Your task to perform on an android device: Open settings Image 0: 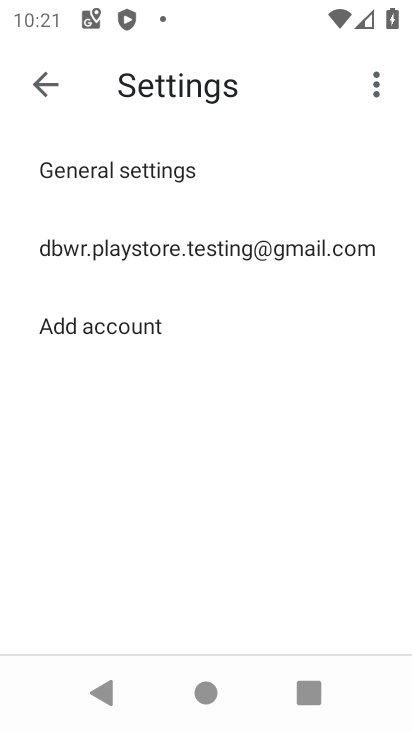
Step 0: drag from (158, 549) to (208, 224)
Your task to perform on an android device: Open settings Image 1: 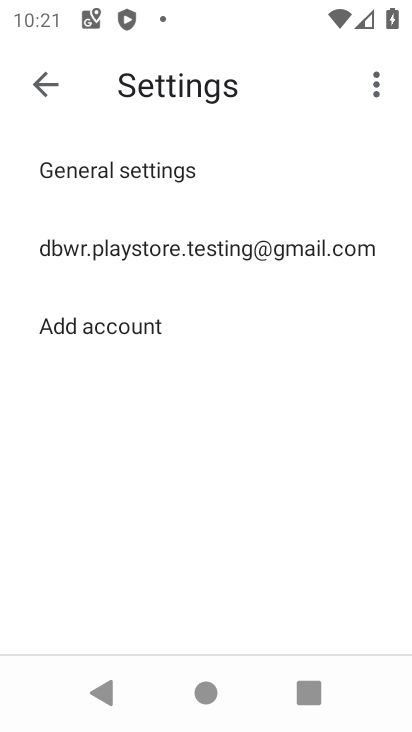
Step 1: press home button
Your task to perform on an android device: Open settings Image 2: 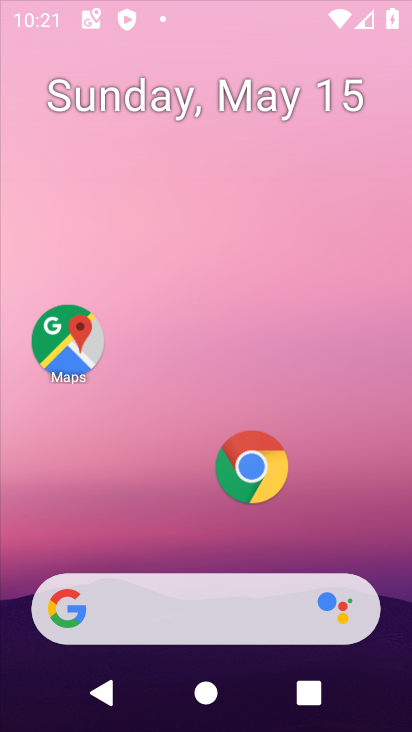
Step 2: drag from (205, 628) to (237, 72)
Your task to perform on an android device: Open settings Image 3: 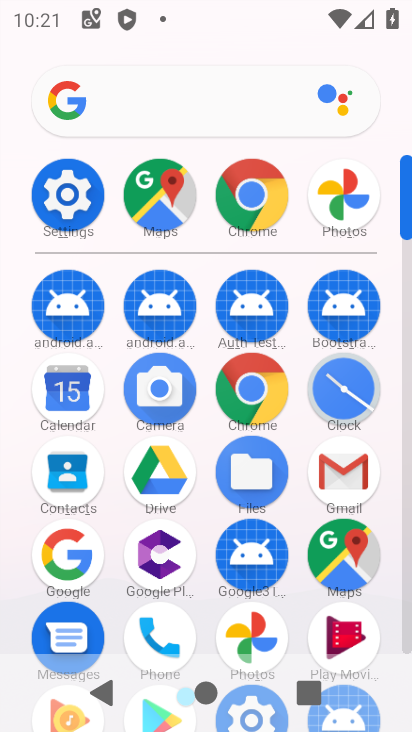
Step 3: click (58, 208)
Your task to perform on an android device: Open settings Image 4: 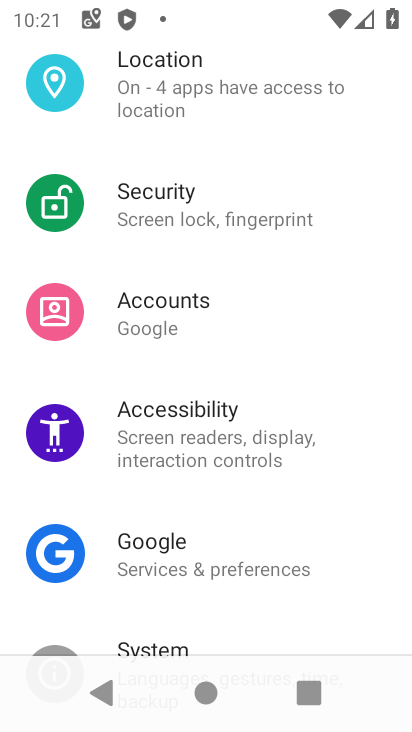
Step 4: task complete